Your task to perform on an android device: Open Google Chrome and click the shortcut for Amazon.com Image 0: 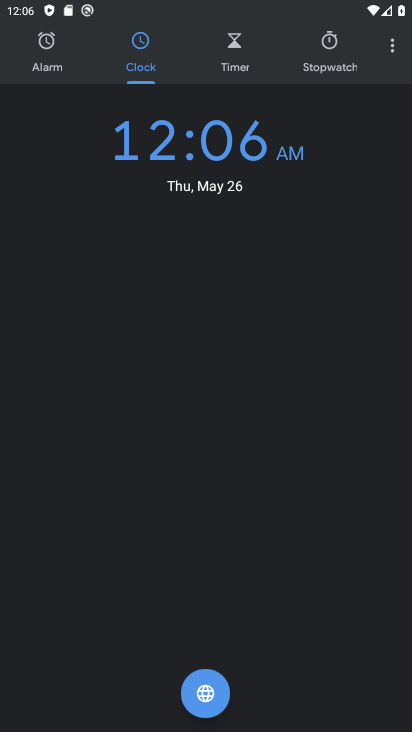
Step 0: press home button
Your task to perform on an android device: Open Google Chrome and click the shortcut for Amazon.com Image 1: 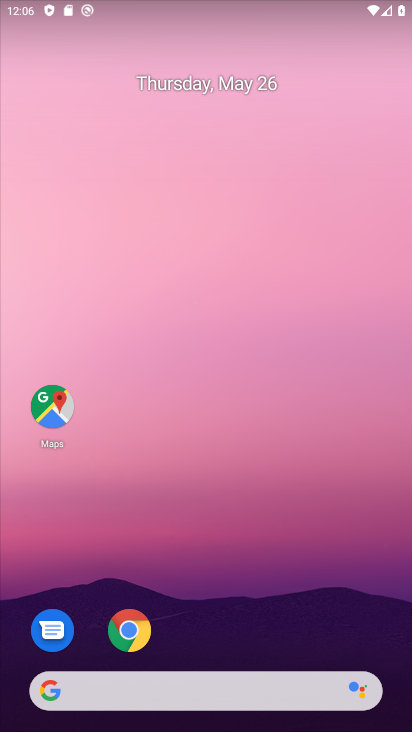
Step 1: click (136, 620)
Your task to perform on an android device: Open Google Chrome and click the shortcut for Amazon.com Image 2: 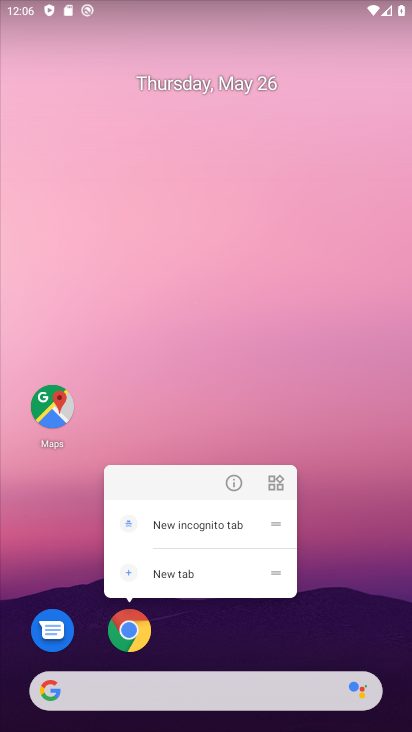
Step 2: click (136, 619)
Your task to perform on an android device: Open Google Chrome and click the shortcut for Amazon.com Image 3: 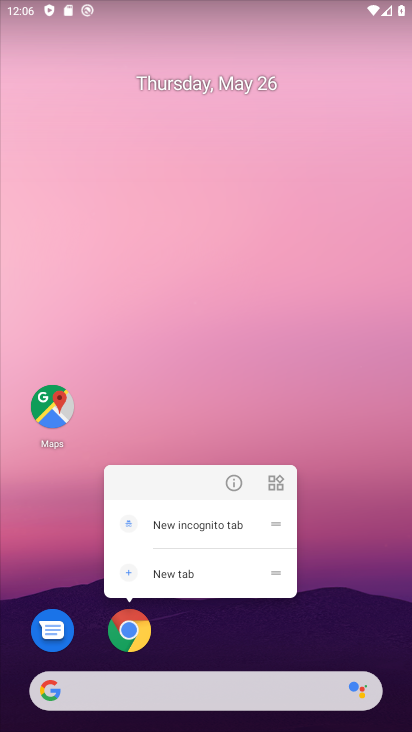
Step 3: click (129, 634)
Your task to perform on an android device: Open Google Chrome and click the shortcut for Amazon.com Image 4: 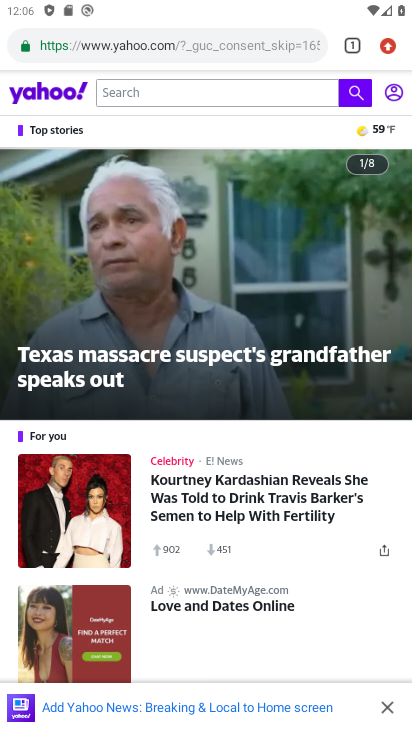
Step 4: click (194, 46)
Your task to perform on an android device: Open Google Chrome and click the shortcut for Amazon.com Image 5: 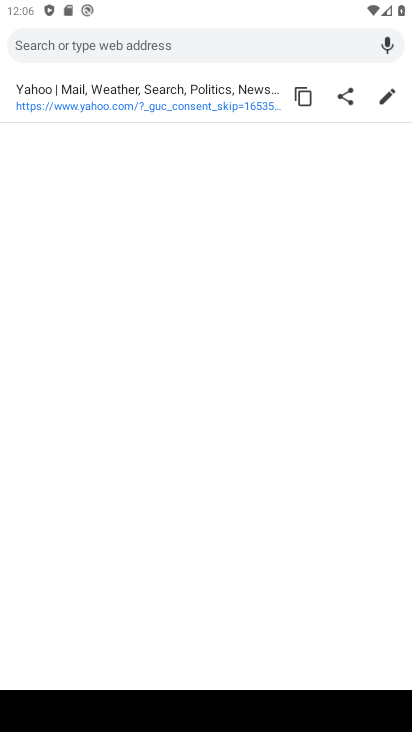
Step 5: type "amazon"
Your task to perform on an android device: Open Google Chrome and click the shortcut for Amazon.com Image 6: 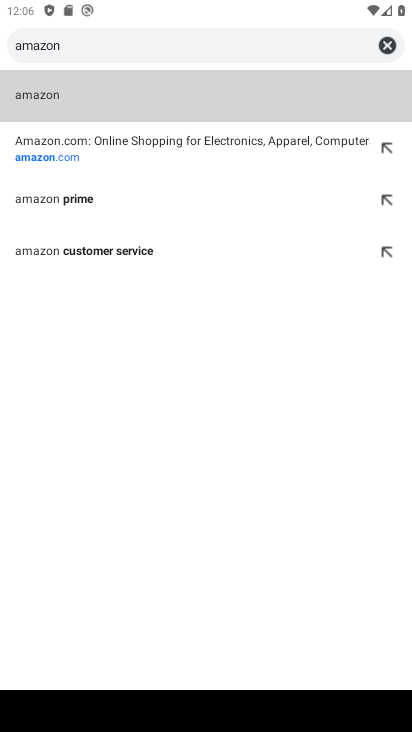
Step 6: click (65, 139)
Your task to perform on an android device: Open Google Chrome and click the shortcut for Amazon.com Image 7: 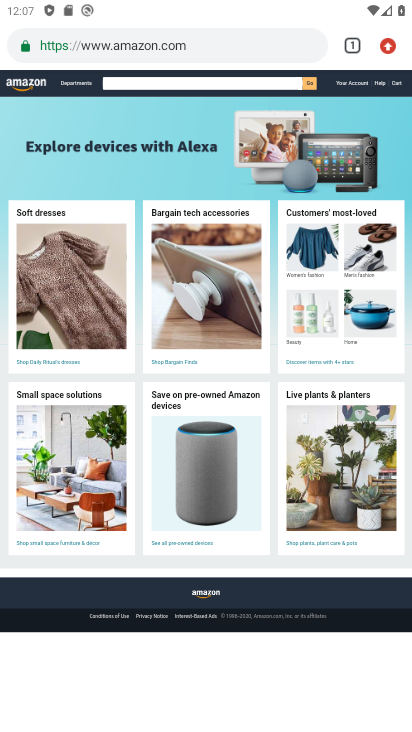
Step 7: task complete